Your task to perform on an android device: Show me the best basketball shoes on Nike.com Image 0: 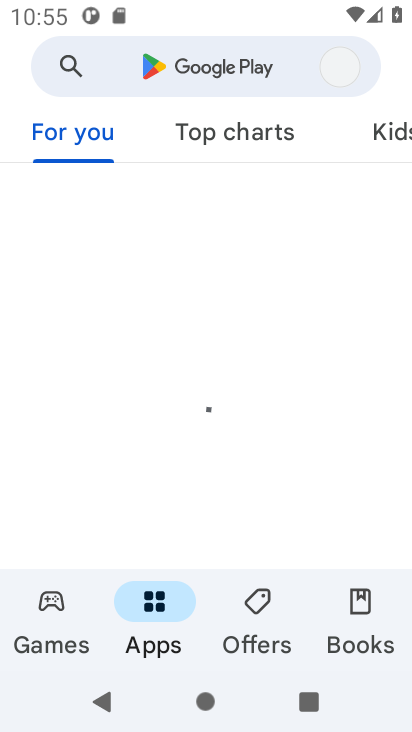
Step 0: press home button
Your task to perform on an android device: Show me the best basketball shoes on Nike.com Image 1: 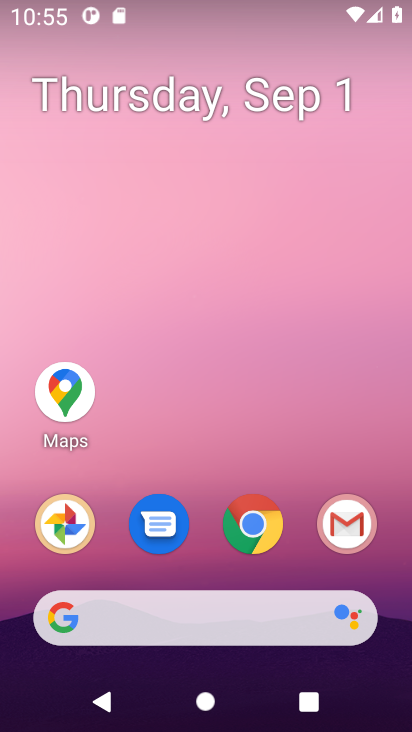
Step 1: click (241, 625)
Your task to perform on an android device: Show me the best basketball shoes on Nike.com Image 2: 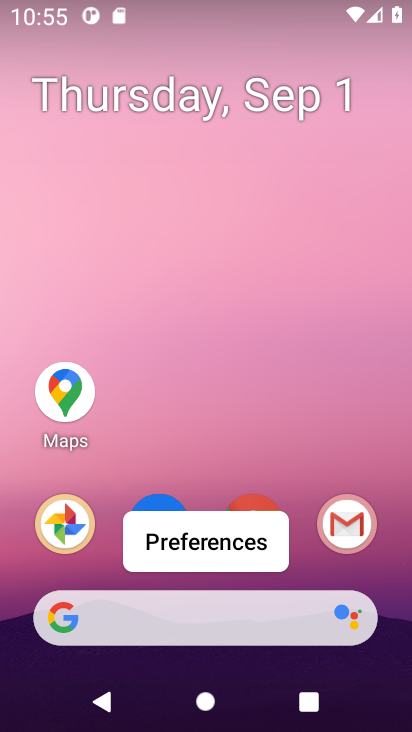
Step 2: click (210, 612)
Your task to perform on an android device: Show me the best basketball shoes on Nike.com Image 3: 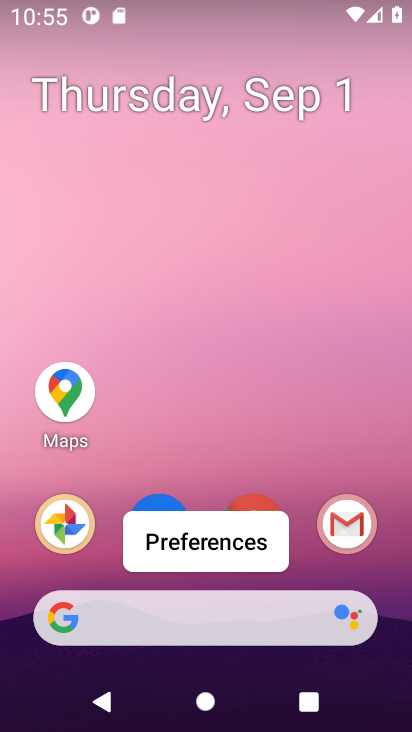
Step 3: click (184, 618)
Your task to perform on an android device: Show me the best basketball shoes on Nike.com Image 4: 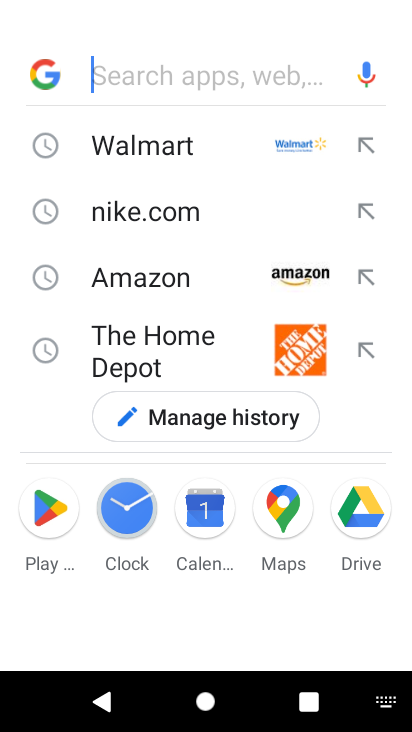
Step 4: click (167, 220)
Your task to perform on an android device: Show me the best basketball shoes on Nike.com Image 5: 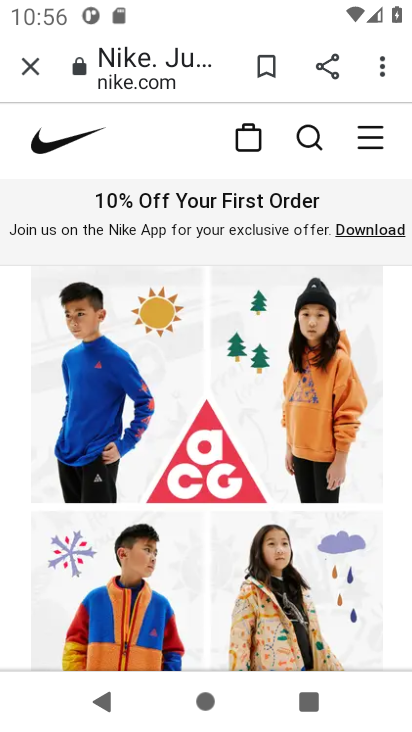
Step 5: click (306, 132)
Your task to perform on an android device: Show me the best basketball shoes on Nike.com Image 6: 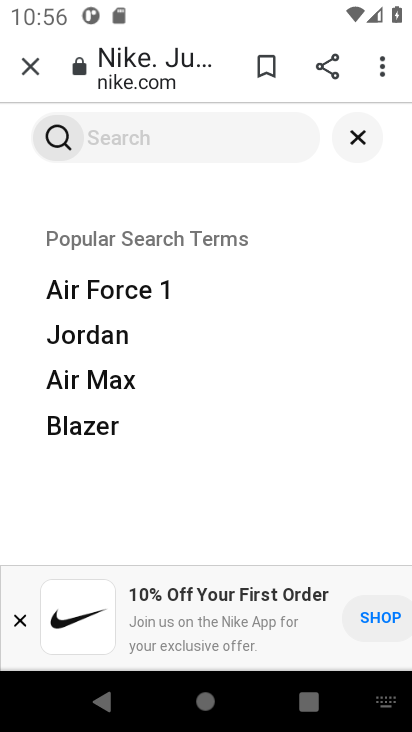
Step 6: press enter
Your task to perform on an android device: Show me the best basketball shoes on Nike.com Image 7: 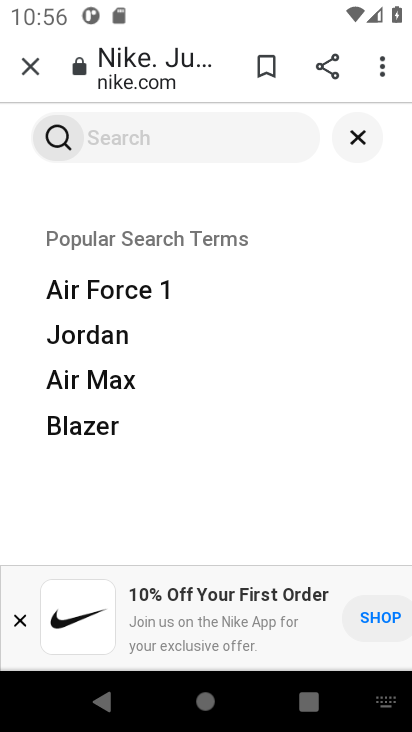
Step 7: type "best basketball shoes"
Your task to perform on an android device: Show me the best basketball shoes on Nike.com Image 8: 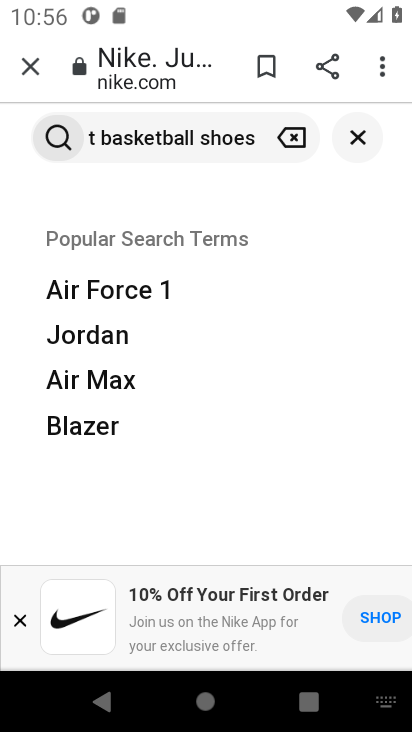
Step 8: click (40, 131)
Your task to perform on an android device: Show me the best basketball shoes on Nike.com Image 9: 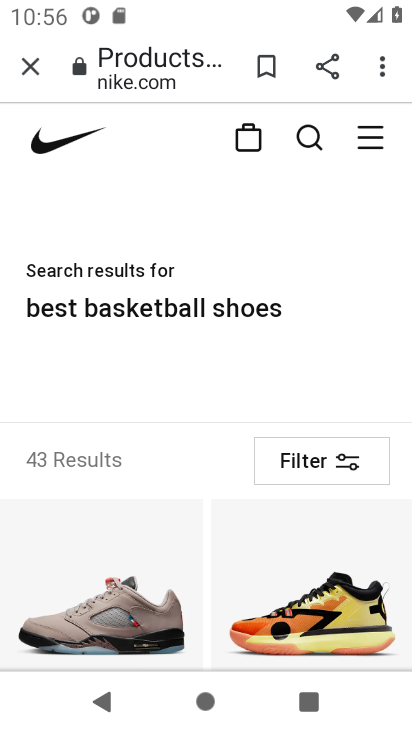
Step 9: task complete